Your task to perform on an android device: Go to ESPN.com Image 0: 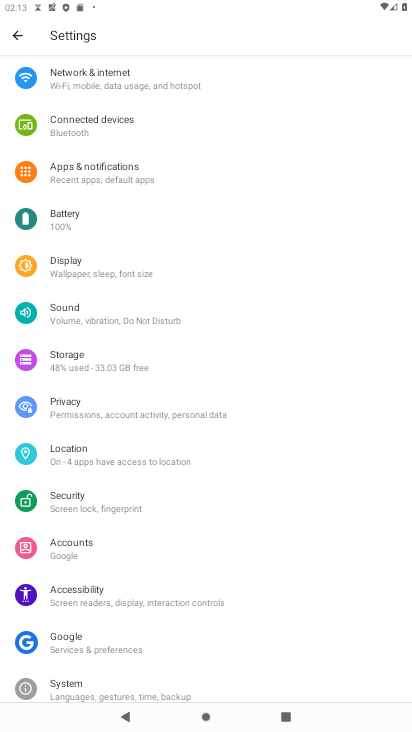
Step 0: press home button
Your task to perform on an android device: Go to ESPN.com Image 1: 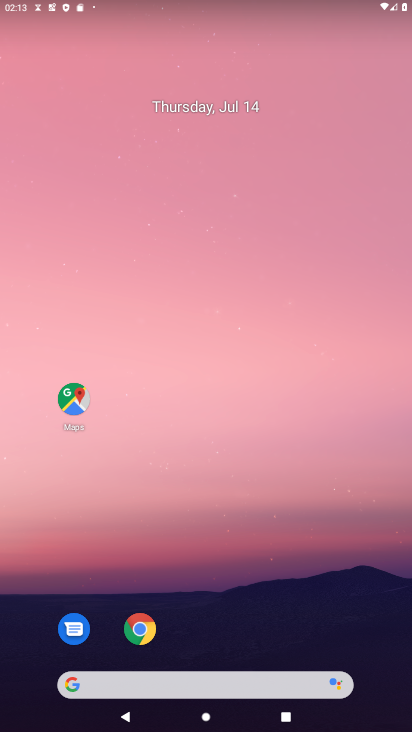
Step 1: click (136, 629)
Your task to perform on an android device: Go to ESPN.com Image 2: 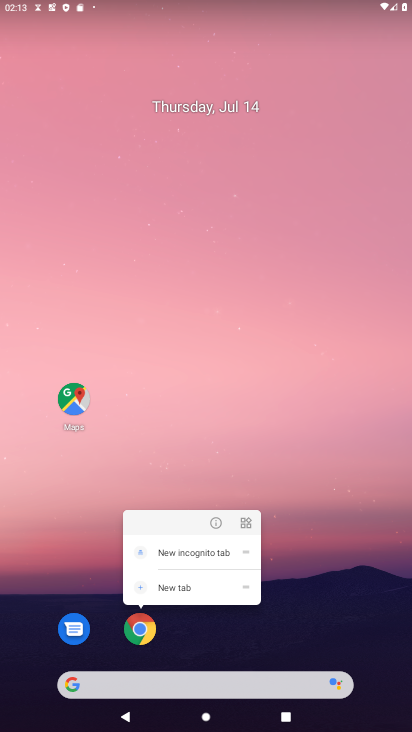
Step 2: click (147, 636)
Your task to perform on an android device: Go to ESPN.com Image 3: 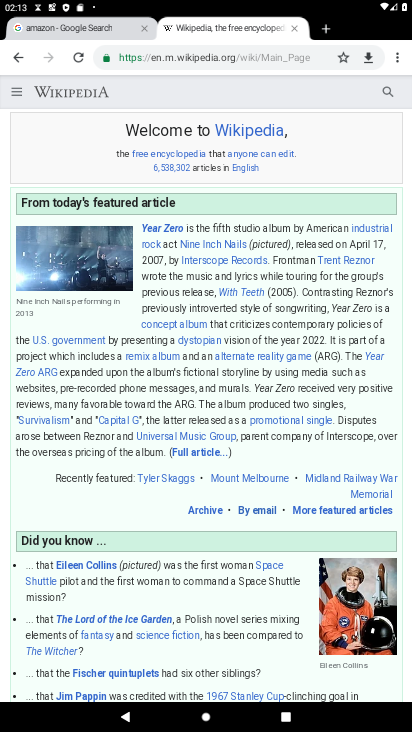
Step 3: click (140, 24)
Your task to perform on an android device: Go to ESPN.com Image 4: 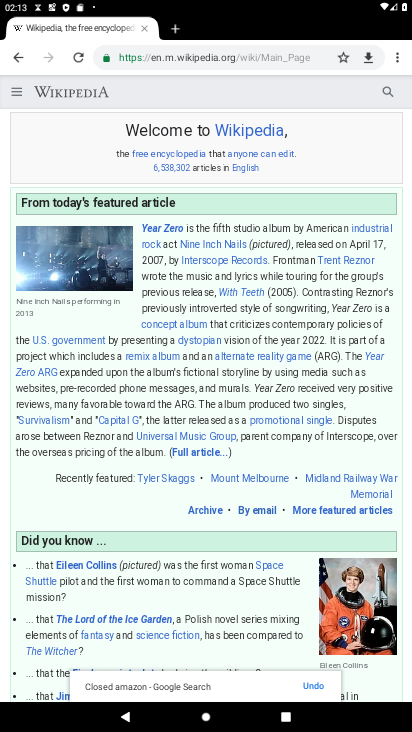
Step 4: click (174, 30)
Your task to perform on an android device: Go to ESPN.com Image 5: 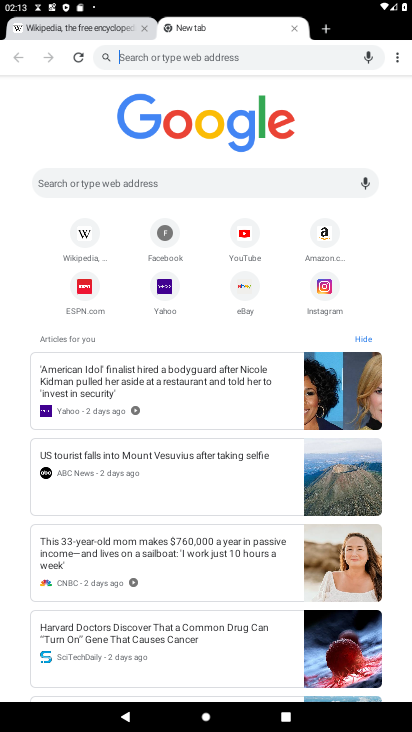
Step 5: click (80, 301)
Your task to perform on an android device: Go to ESPN.com Image 6: 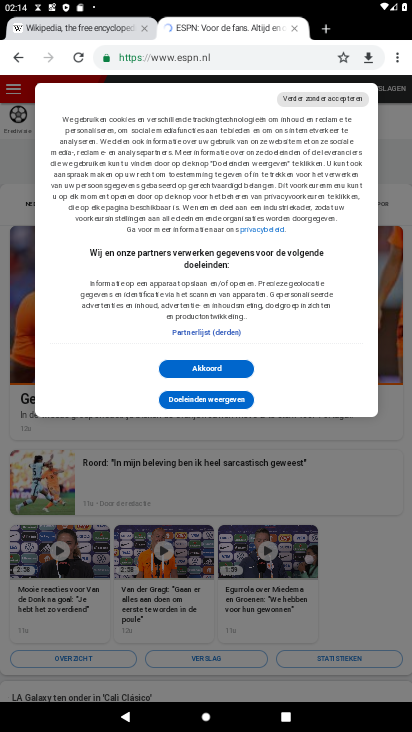
Step 6: task complete